Your task to perform on an android device: change notification settings in the gmail app Image 0: 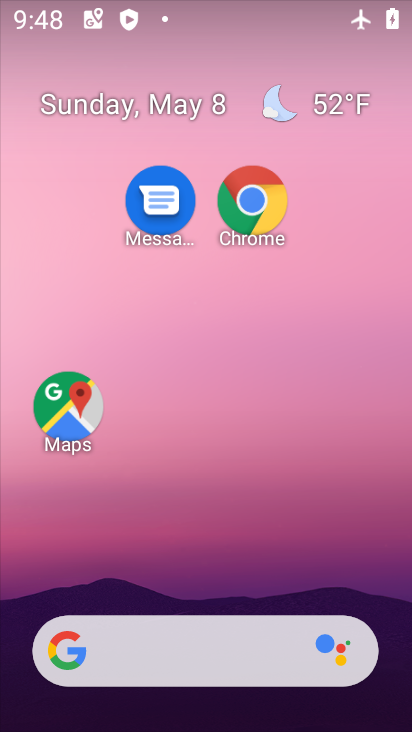
Step 0: drag from (196, 611) to (161, 19)
Your task to perform on an android device: change notification settings in the gmail app Image 1: 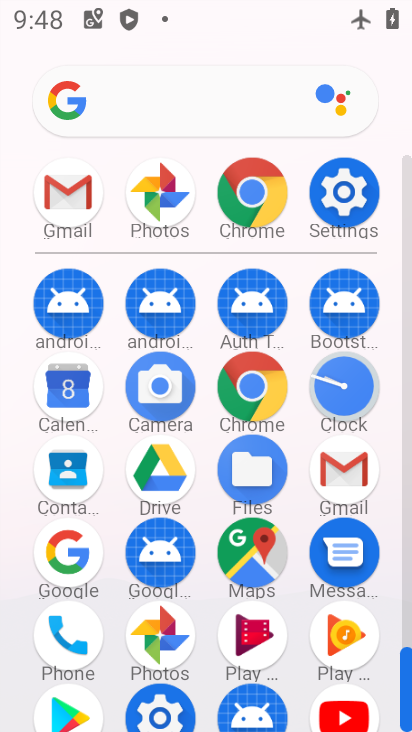
Step 1: click (337, 446)
Your task to perform on an android device: change notification settings in the gmail app Image 2: 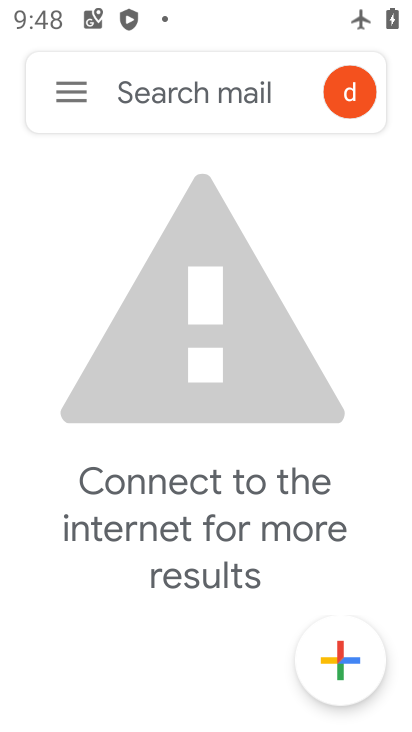
Step 2: click (61, 80)
Your task to perform on an android device: change notification settings in the gmail app Image 3: 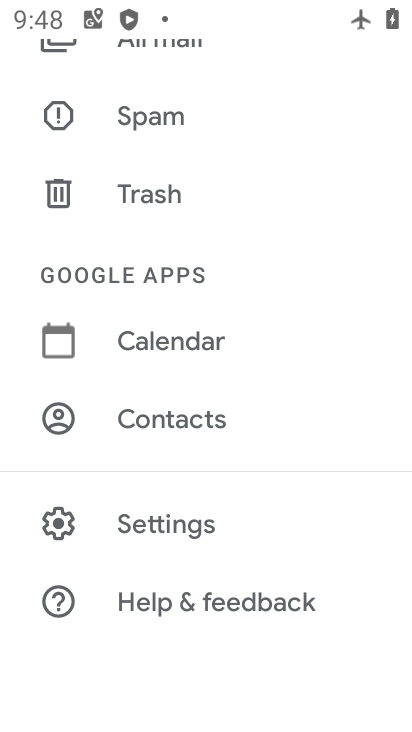
Step 3: click (137, 513)
Your task to perform on an android device: change notification settings in the gmail app Image 4: 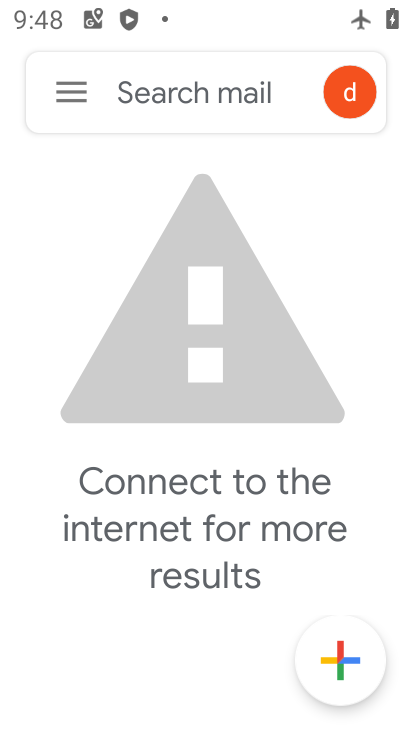
Step 4: drag from (137, 513) to (100, 54)
Your task to perform on an android device: change notification settings in the gmail app Image 5: 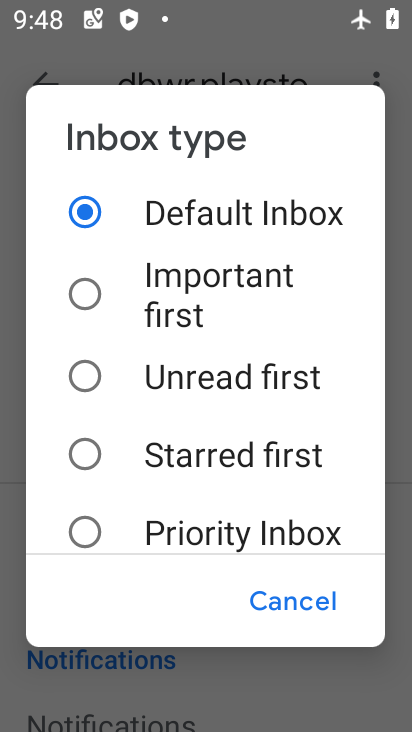
Step 5: click (267, 595)
Your task to perform on an android device: change notification settings in the gmail app Image 6: 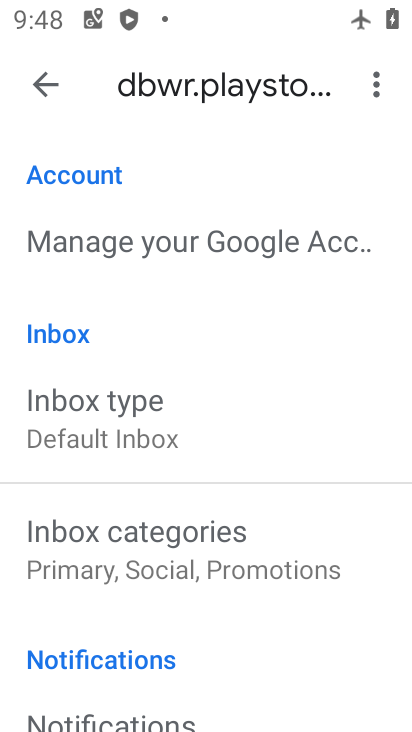
Step 6: click (51, 95)
Your task to perform on an android device: change notification settings in the gmail app Image 7: 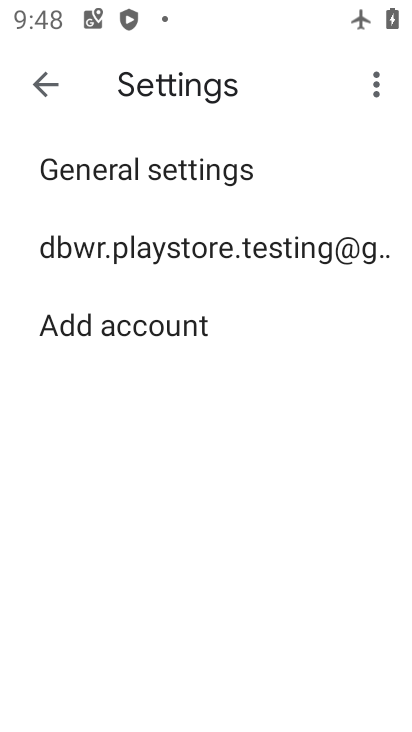
Step 7: click (89, 161)
Your task to perform on an android device: change notification settings in the gmail app Image 8: 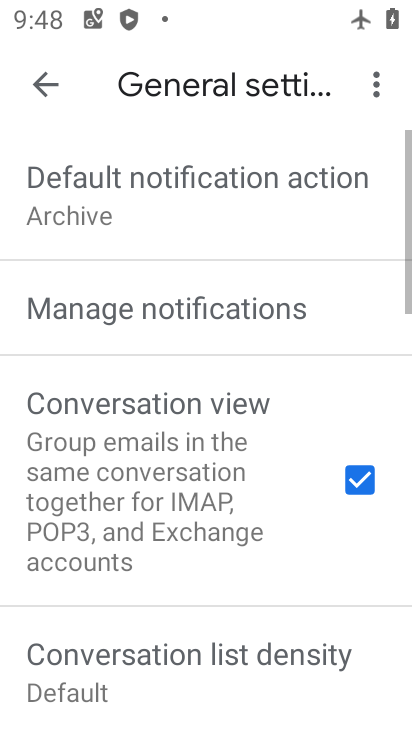
Step 8: click (132, 283)
Your task to perform on an android device: change notification settings in the gmail app Image 9: 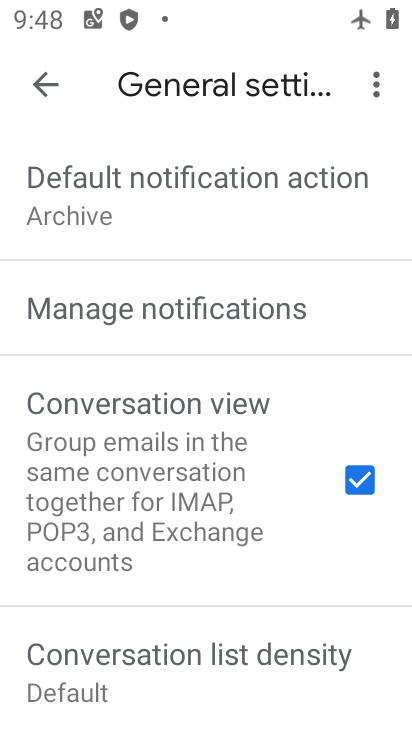
Step 9: click (216, 299)
Your task to perform on an android device: change notification settings in the gmail app Image 10: 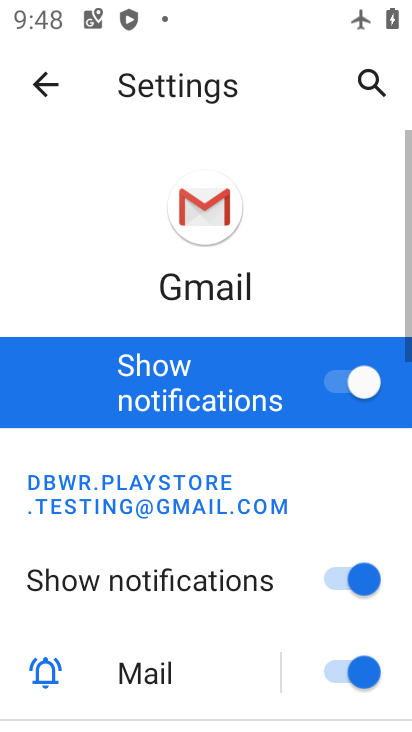
Step 10: click (348, 375)
Your task to perform on an android device: change notification settings in the gmail app Image 11: 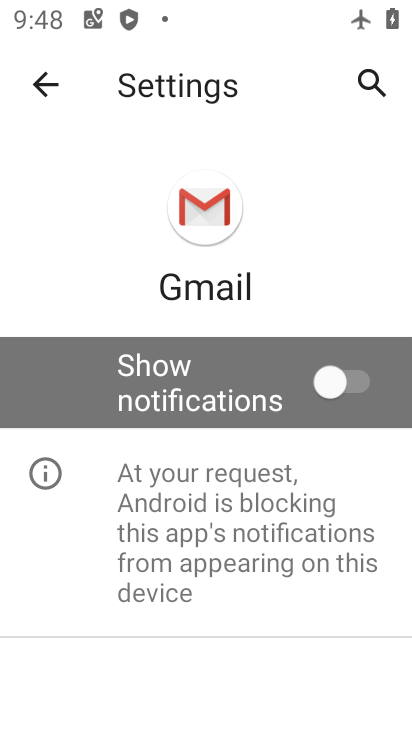
Step 11: task complete